Your task to perform on an android device: Open calendar and show me the second week of next month Image 0: 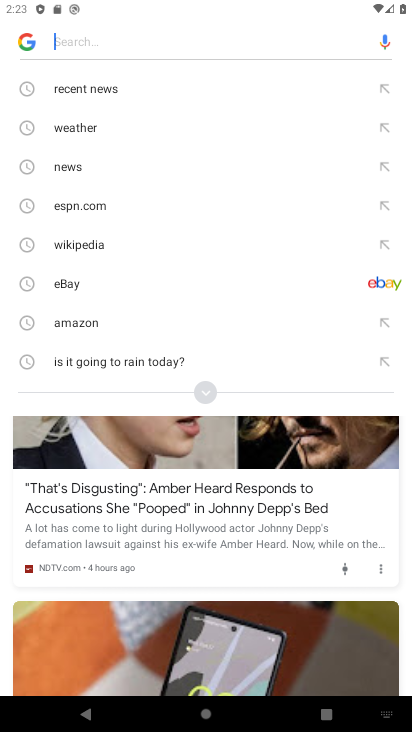
Step 0: press back button
Your task to perform on an android device: Open calendar and show me the second week of next month Image 1: 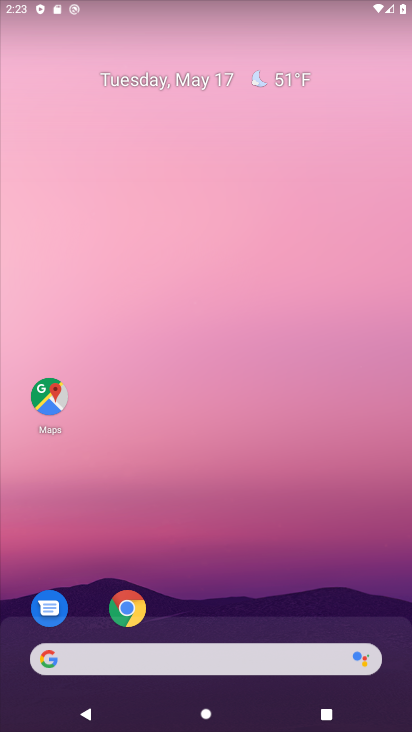
Step 1: drag from (157, 607) to (245, 281)
Your task to perform on an android device: Open calendar and show me the second week of next month Image 2: 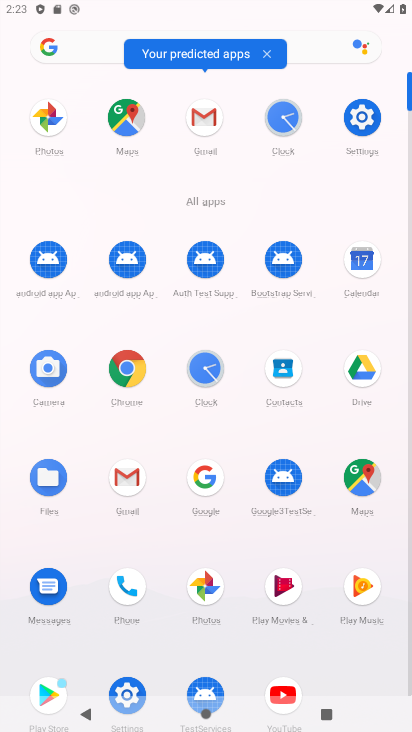
Step 2: click (374, 260)
Your task to perform on an android device: Open calendar and show me the second week of next month Image 3: 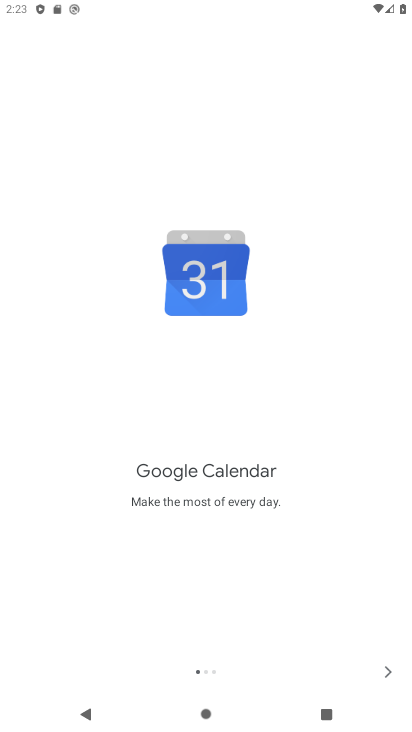
Step 3: click (394, 673)
Your task to perform on an android device: Open calendar and show me the second week of next month Image 4: 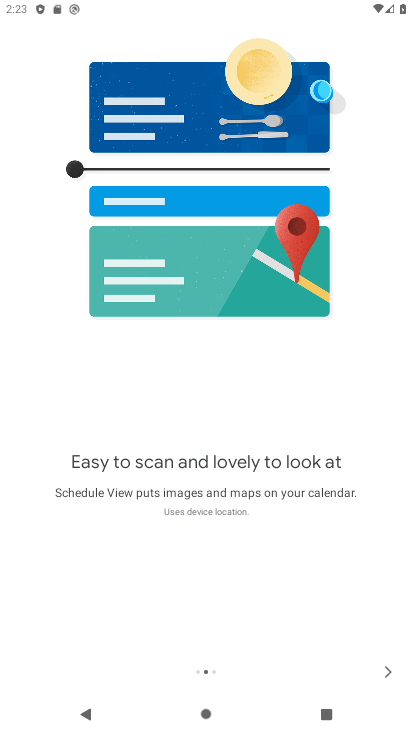
Step 4: click (390, 676)
Your task to perform on an android device: Open calendar and show me the second week of next month Image 5: 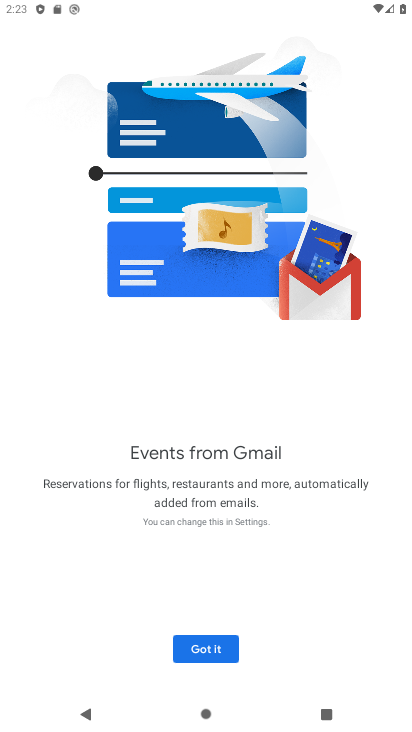
Step 5: click (242, 647)
Your task to perform on an android device: Open calendar and show me the second week of next month Image 6: 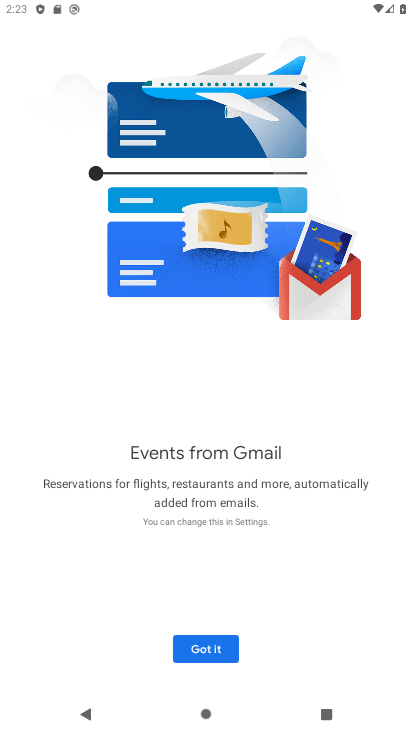
Step 6: click (227, 647)
Your task to perform on an android device: Open calendar and show me the second week of next month Image 7: 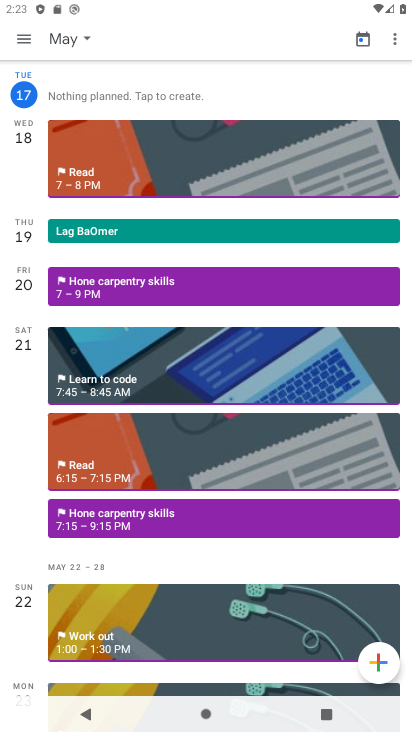
Step 7: click (84, 40)
Your task to perform on an android device: Open calendar and show me the second week of next month Image 8: 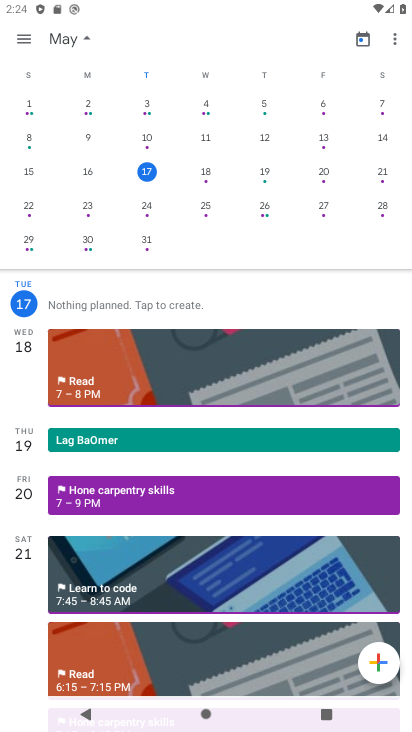
Step 8: drag from (364, 261) to (134, 230)
Your task to perform on an android device: Open calendar and show me the second week of next month Image 9: 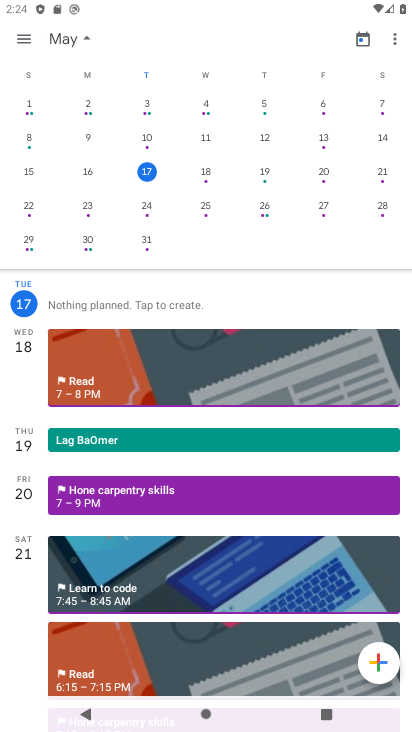
Step 9: drag from (380, 230) to (69, 192)
Your task to perform on an android device: Open calendar and show me the second week of next month Image 10: 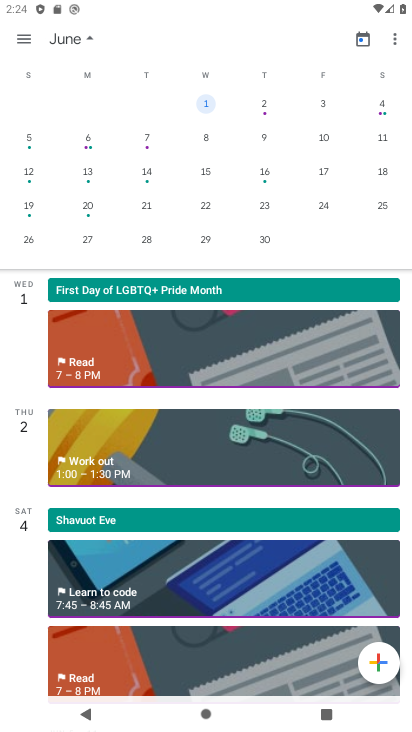
Step 10: click (34, 177)
Your task to perform on an android device: Open calendar and show me the second week of next month Image 11: 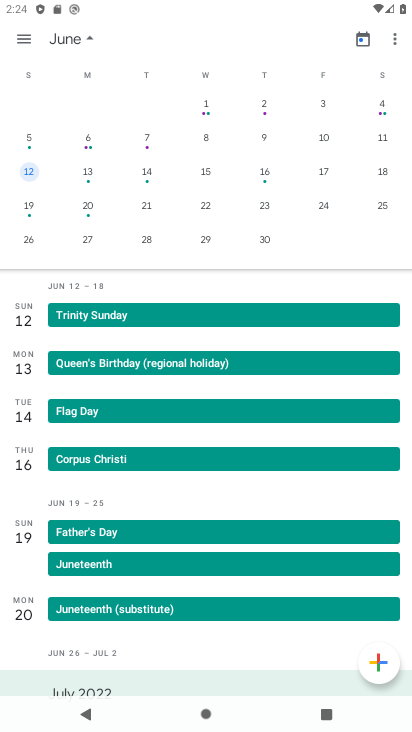
Step 11: click (22, 39)
Your task to perform on an android device: Open calendar and show me the second week of next month Image 12: 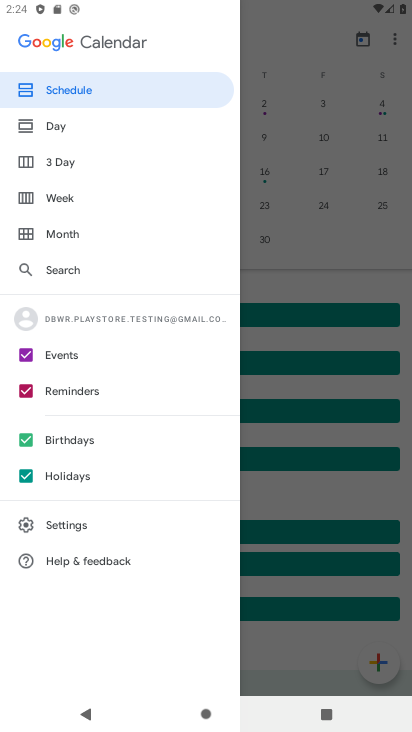
Step 12: click (90, 206)
Your task to perform on an android device: Open calendar and show me the second week of next month Image 13: 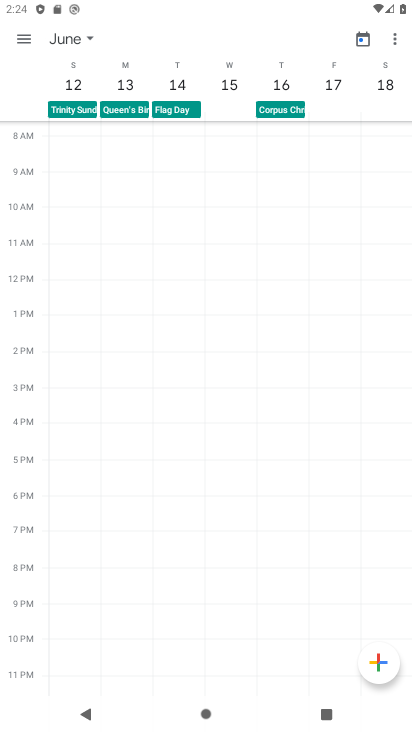
Step 13: task complete